Your task to perform on an android device: check data usage Image 0: 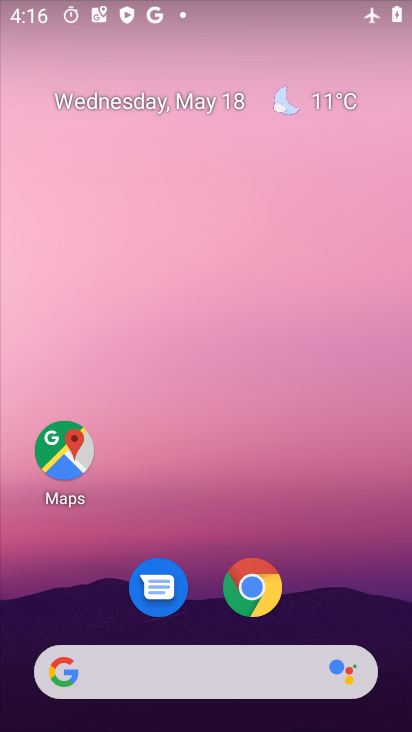
Step 0: drag from (231, 647) to (300, 40)
Your task to perform on an android device: check data usage Image 1: 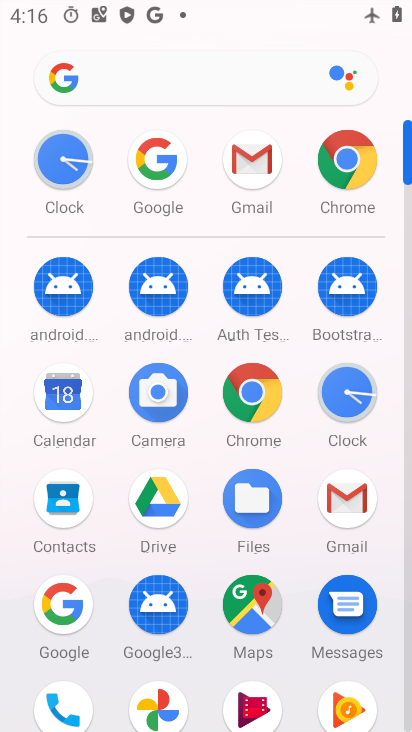
Step 1: drag from (142, 574) to (145, 491)
Your task to perform on an android device: check data usage Image 2: 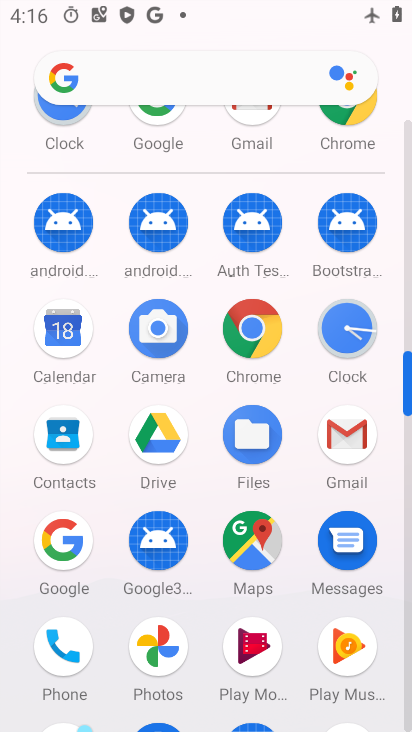
Step 2: drag from (195, 559) to (256, 314)
Your task to perform on an android device: check data usage Image 3: 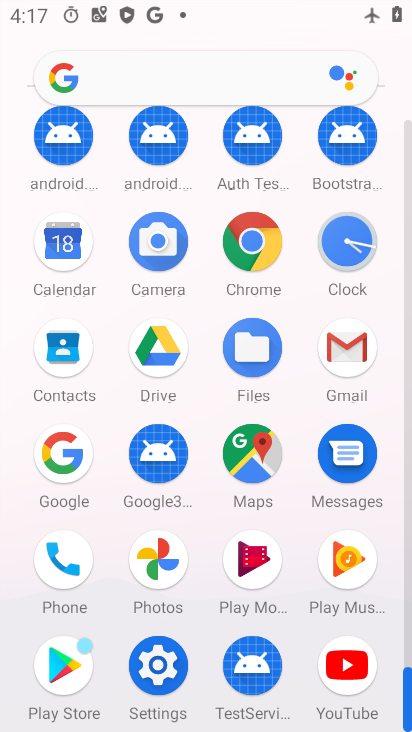
Step 3: click (166, 670)
Your task to perform on an android device: check data usage Image 4: 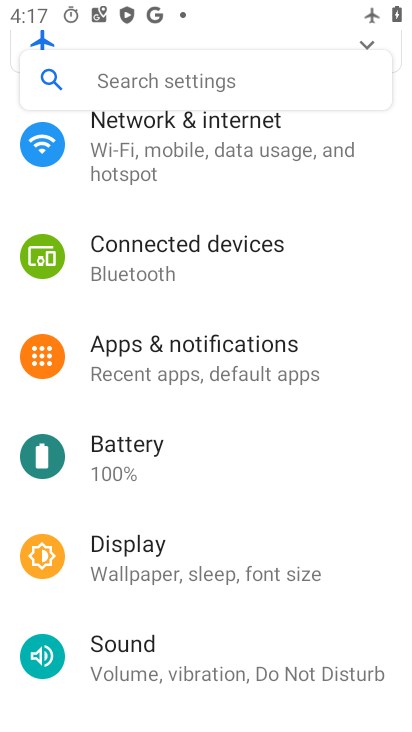
Step 4: drag from (215, 496) to (215, 532)
Your task to perform on an android device: check data usage Image 5: 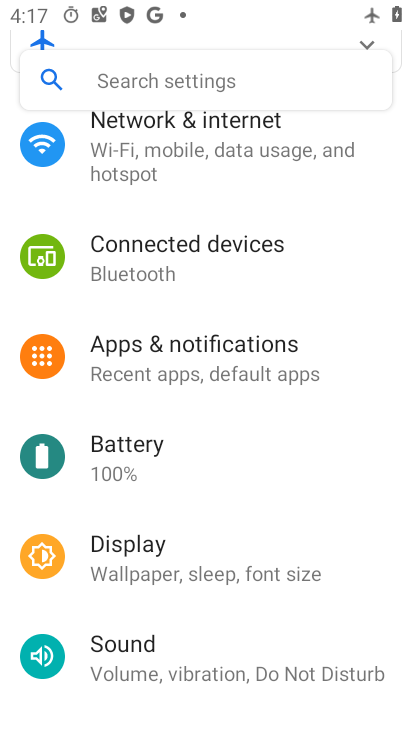
Step 5: click (263, 188)
Your task to perform on an android device: check data usage Image 6: 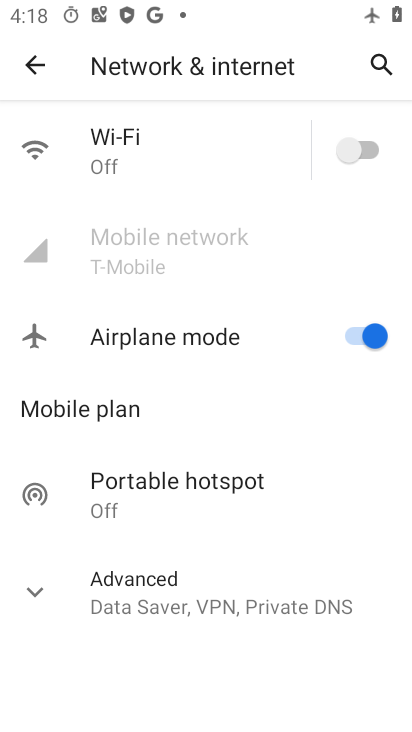
Step 6: task complete